Your task to perform on an android device: Open accessibility settings Image 0: 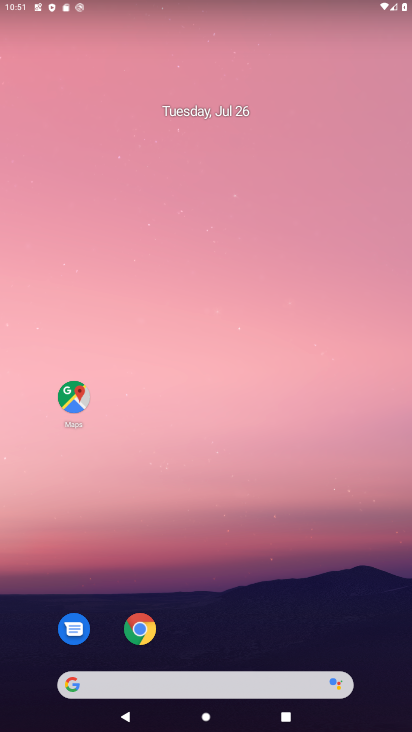
Step 0: drag from (263, 648) to (253, 86)
Your task to perform on an android device: Open accessibility settings Image 1: 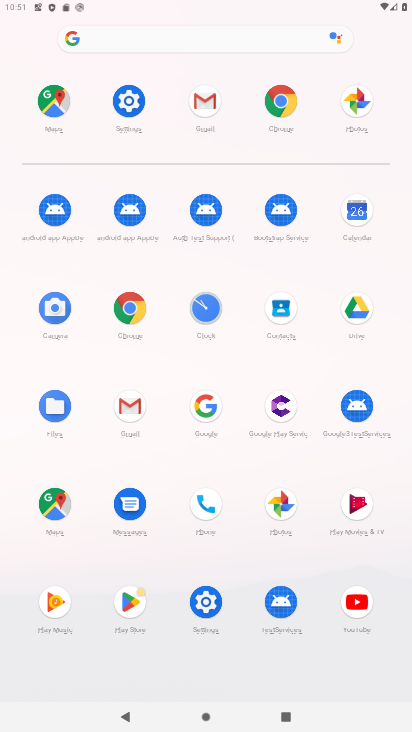
Step 1: click (143, 127)
Your task to perform on an android device: Open accessibility settings Image 2: 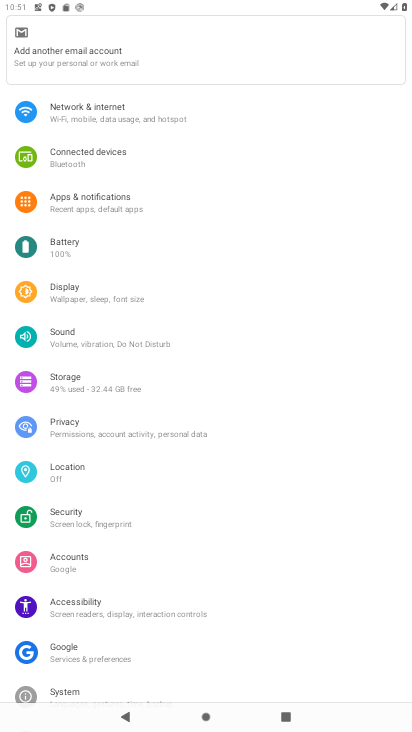
Step 2: click (115, 615)
Your task to perform on an android device: Open accessibility settings Image 3: 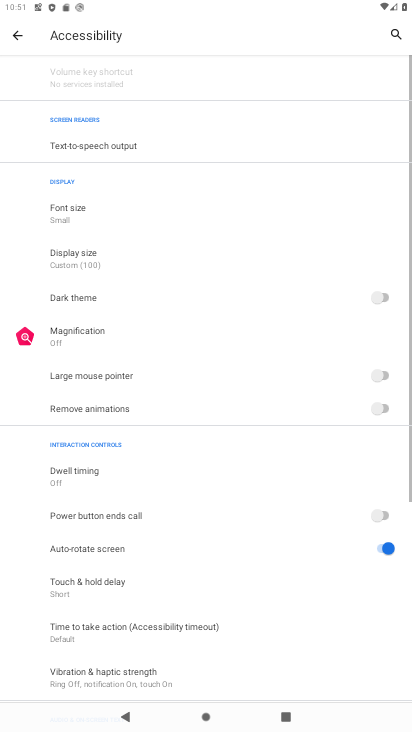
Step 3: task complete